Your task to perform on an android device: Open calendar and show me the fourth week of next month Image 0: 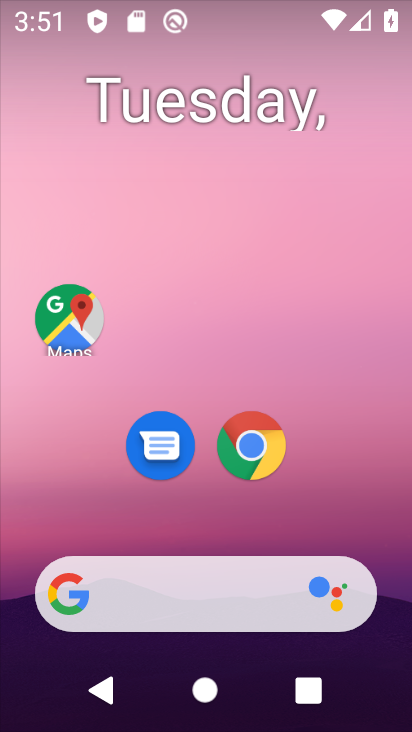
Step 0: drag from (375, 561) to (373, 237)
Your task to perform on an android device: Open calendar and show me the fourth week of next month Image 1: 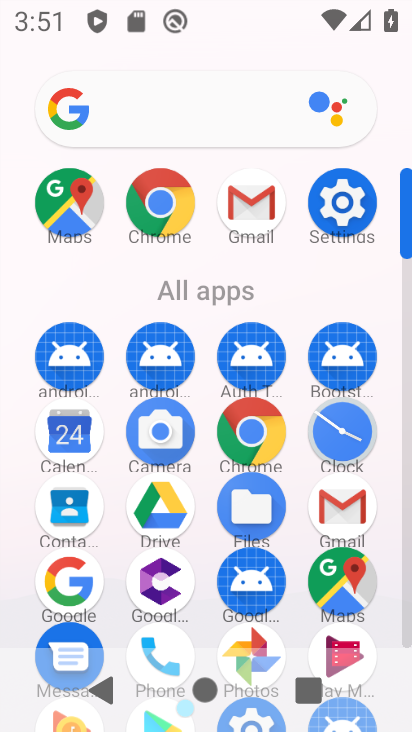
Step 1: click (74, 441)
Your task to perform on an android device: Open calendar and show me the fourth week of next month Image 2: 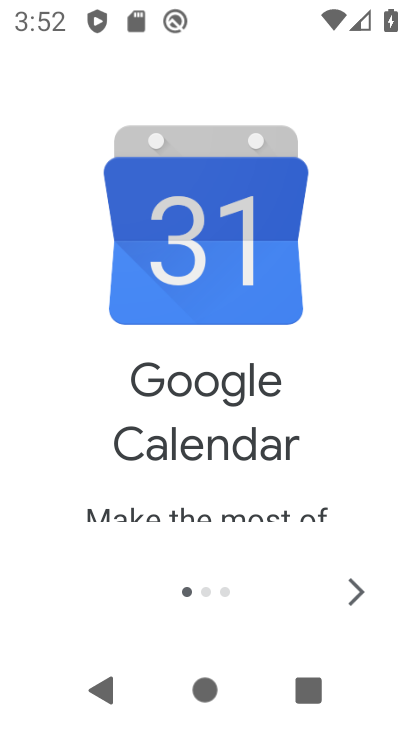
Step 2: click (365, 587)
Your task to perform on an android device: Open calendar and show me the fourth week of next month Image 3: 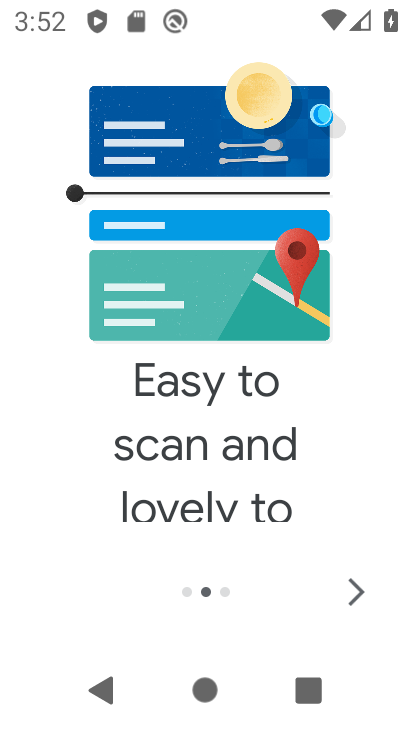
Step 3: click (365, 587)
Your task to perform on an android device: Open calendar and show me the fourth week of next month Image 4: 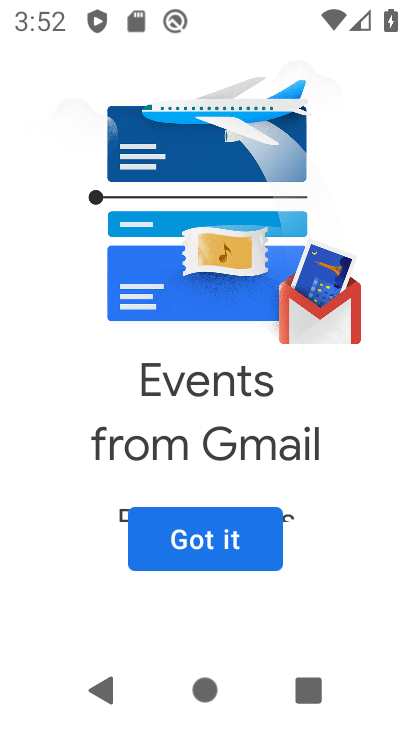
Step 4: click (234, 521)
Your task to perform on an android device: Open calendar and show me the fourth week of next month Image 5: 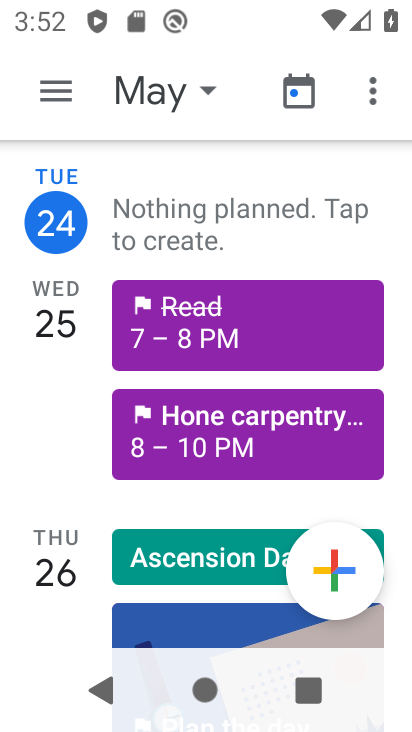
Step 5: click (68, 99)
Your task to perform on an android device: Open calendar and show me the fourth week of next month Image 6: 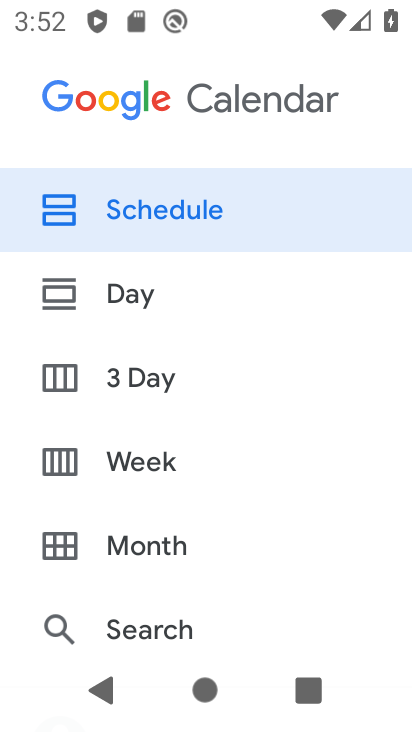
Step 6: click (155, 460)
Your task to perform on an android device: Open calendar and show me the fourth week of next month Image 7: 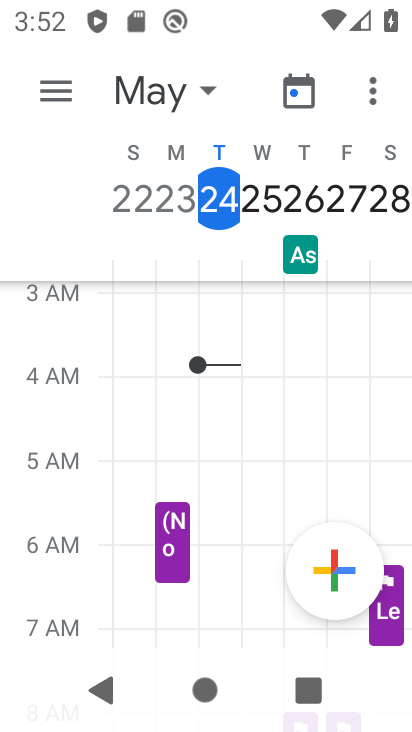
Step 7: click (182, 84)
Your task to perform on an android device: Open calendar and show me the fourth week of next month Image 8: 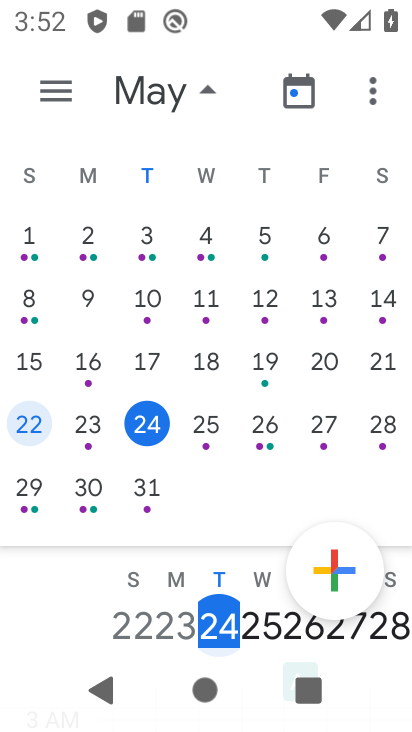
Step 8: drag from (376, 396) to (30, 405)
Your task to perform on an android device: Open calendar and show me the fourth week of next month Image 9: 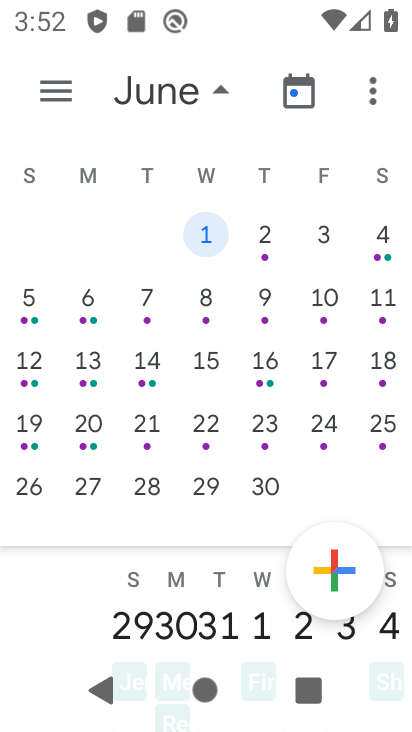
Step 9: click (89, 481)
Your task to perform on an android device: Open calendar and show me the fourth week of next month Image 10: 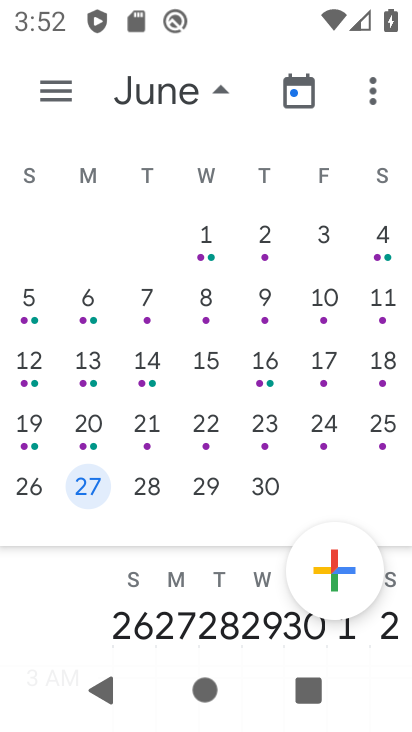
Step 10: task complete